Your task to perform on an android device: Open Google Maps Image 0: 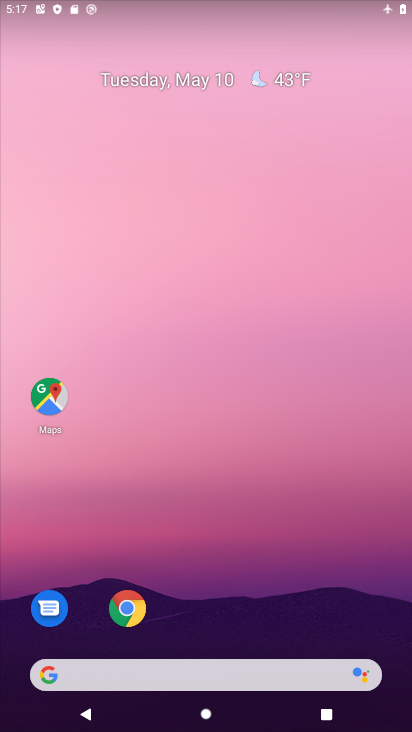
Step 0: drag from (219, 586) to (306, 53)
Your task to perform on an android device: Open Google Maps Image 1: 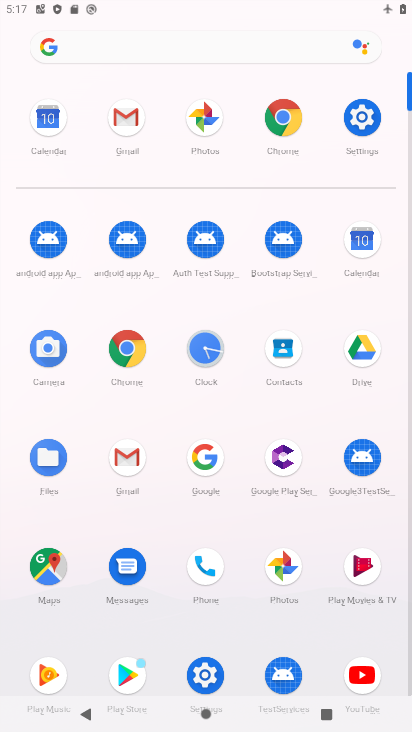
Step 1: click (192, 458)
Your task to perform on an android device: Open Google Maps Image 2: 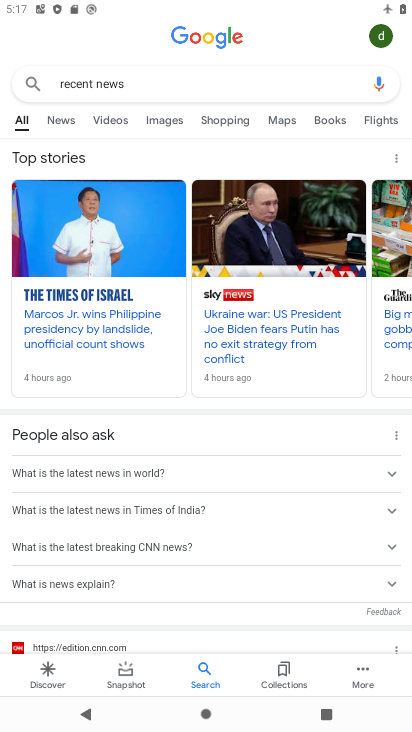
Step 2: press home button
Your task to perform on an android device: Open Google Maps Image 3: 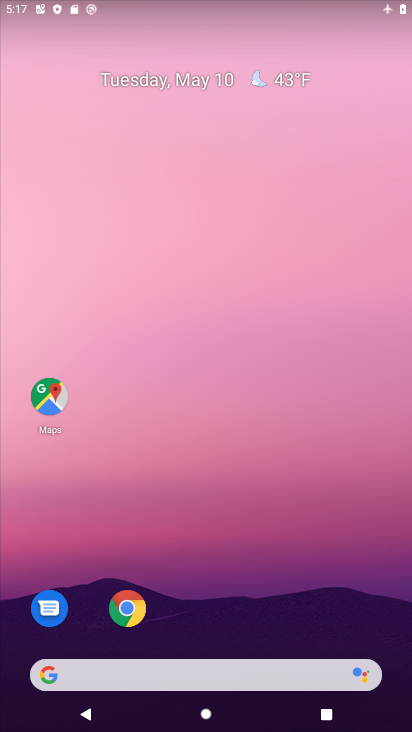
Step 3: click (50, 392)
Your task to perform on an android device: Open Google Maps Image 4: 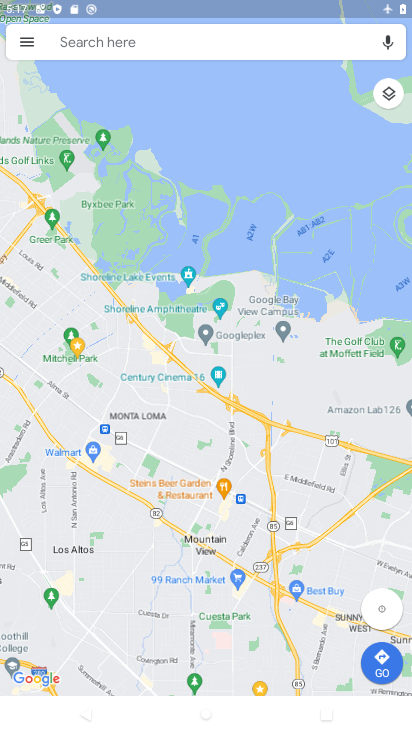
Step 4: task complete